Your task to perform on an android device: toggle pop-ups in chrome Image 0: 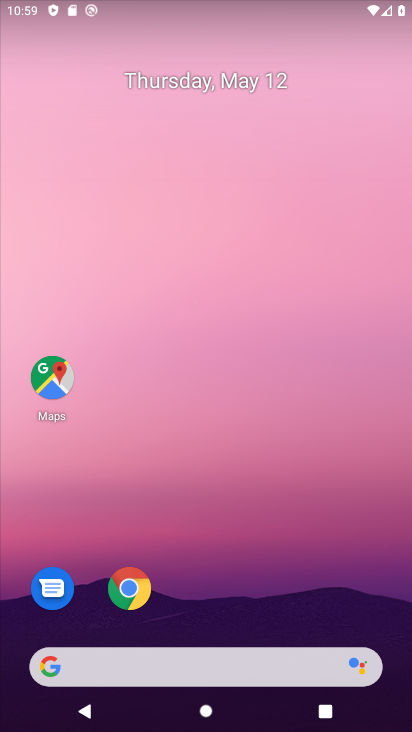
Step 0: drag from (195, 626) to (261, 226)
Your task to perform on an android device: toggle pop-ups in chrome Image 1: 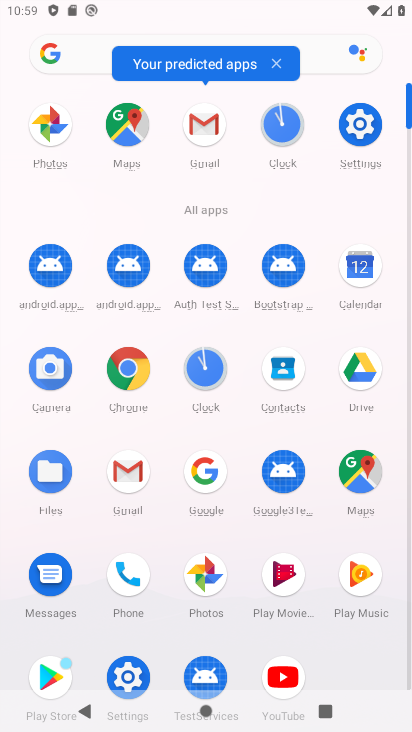
Step 1: click (127, 349)
Your task to perform on an android device: toggle pop-ups in chrome Image 2: 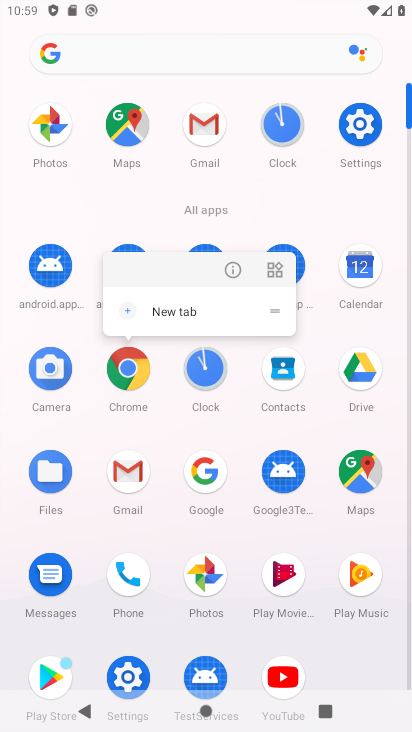
Step 2: click (236, 277)
Your task to perform on an android device: toggle pop-ups in chrome Image 3: 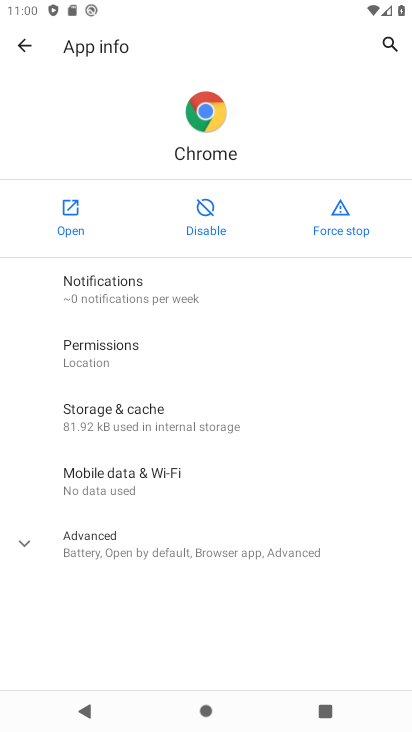
Step 3: click (71, 216)
Your task to perform on an android device: toggle pop-ups in chrome Image 4: 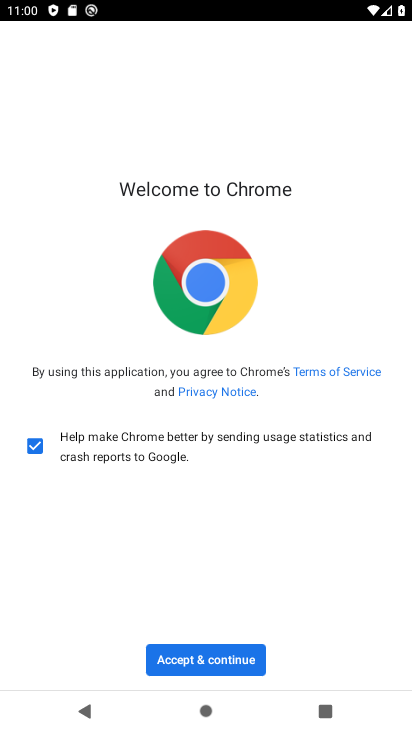
Step 4: click (188, 666)
Your task to perform on an android device: toggle pop-ups in chrome Image 5: 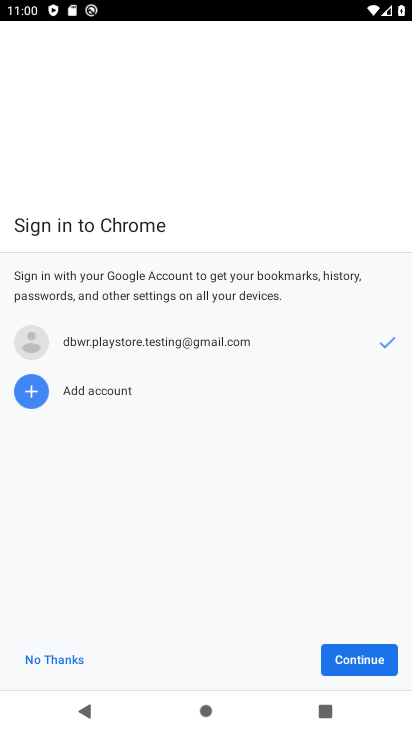
Step 5: click (47, 661)
Your task to perform on an android device: toggle pop-ups in chrome Image 6: 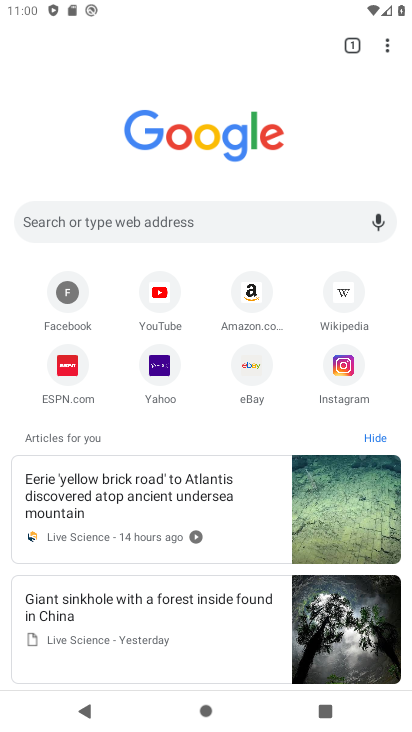
Step 6: click (390, 40)
Your task to perform on an android device: toggle pop-ups in chrome Image 7: 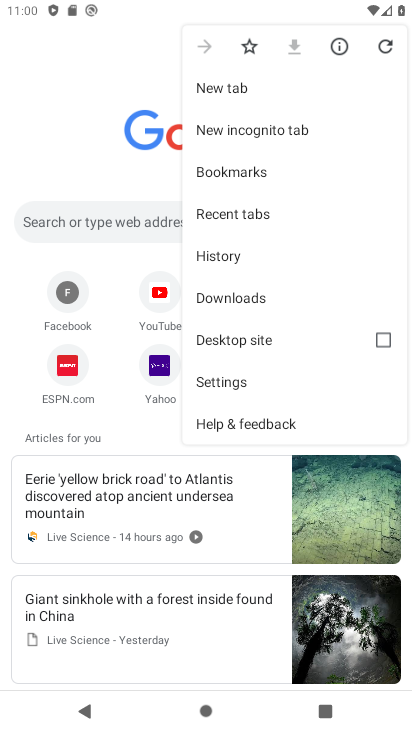
Step 7: click (237, 373)
Your task to perform on an android device: toggle pop-ups in chrome Image 8: 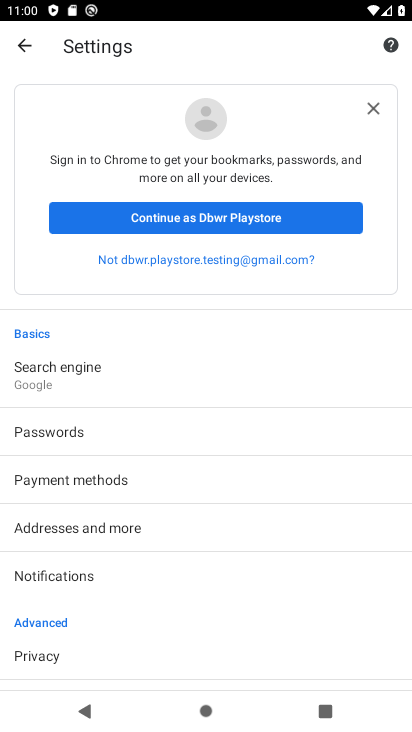
Step 8: drag from (170, 654) to (185, 239)
Your task to perform on an android device: toggle pop-ups in chrome Image 9: 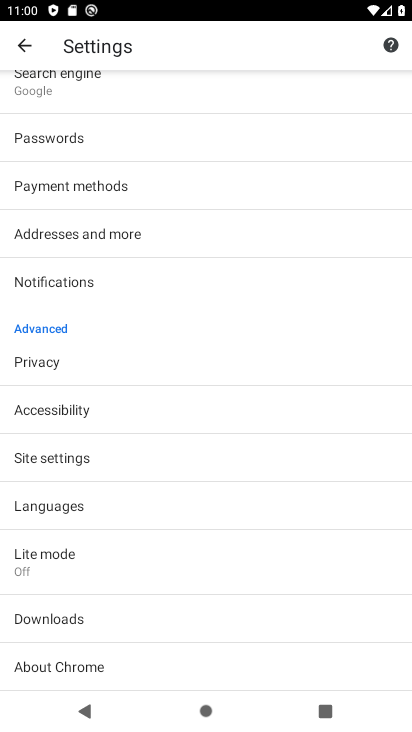
Step 9: click (110, 456)
Your task to perform on an android device: toggle pop-ups in chrome Image 10: 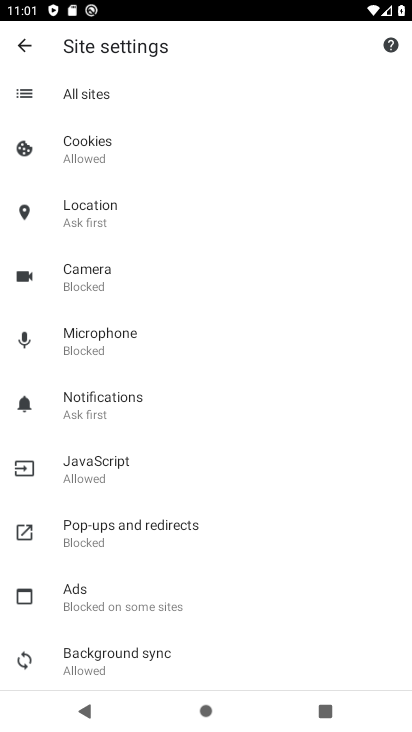
Step 10: click (150, 527)
Your task to perform on an android device: toggle pop-ups in chrome Image 11: 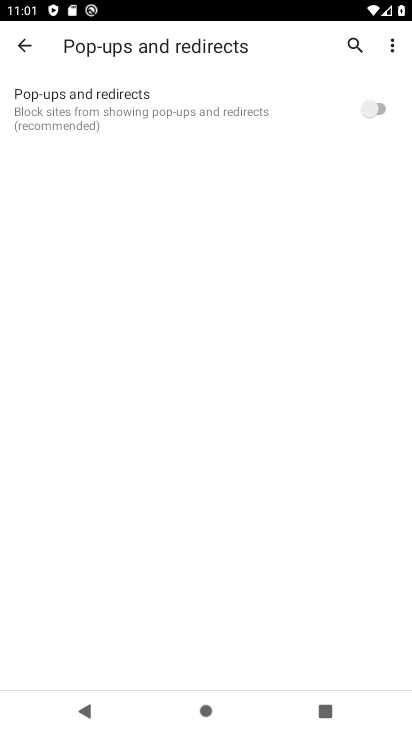
Step 11: click (356, 109)
Your task to perform on an android device: toggle pop-ups in chrome Image 12: 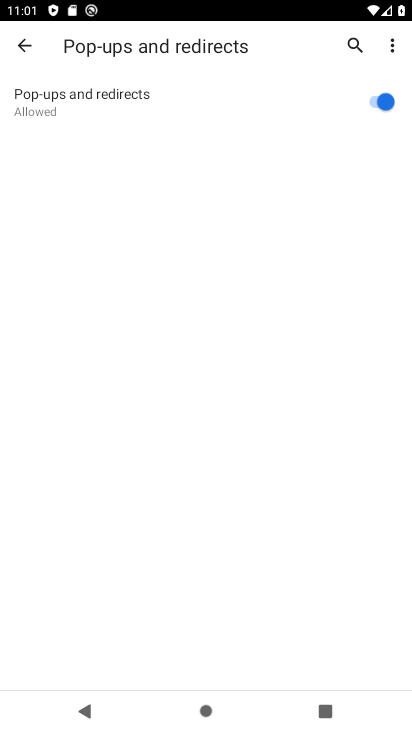
Step 12: task complete